Your task to perform on an android device: all mails in gmail Image 0: 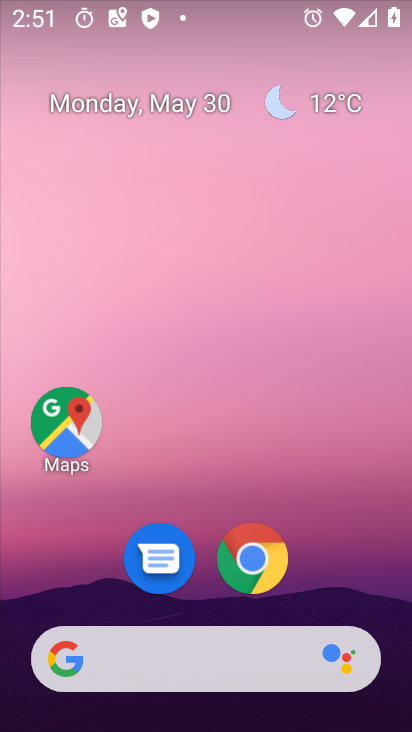
Step 0: drag from (196, 559) to (243, 7)
Your task to perform on an android device: all mails in gmail Image 1: 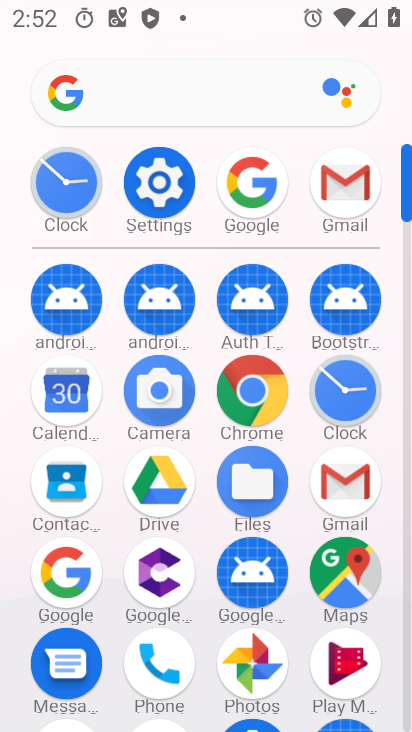
Step 1: click (351, 172)
Your task to perform on an android device: all mails in gmail Image 2: 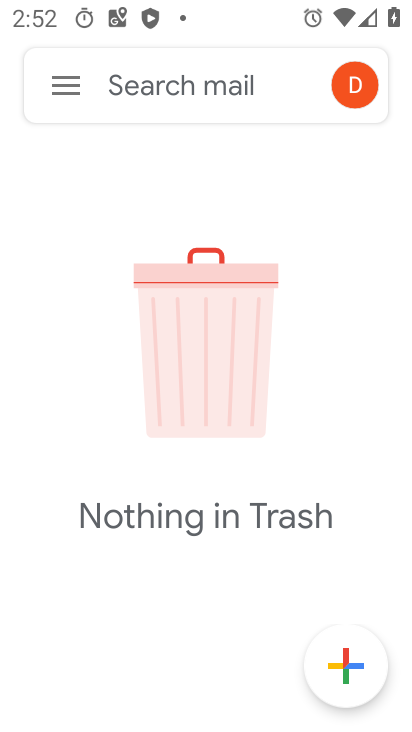
Step 2: click (57, 77)
Your task to perform on an android device: all mails in gmail Image 3: 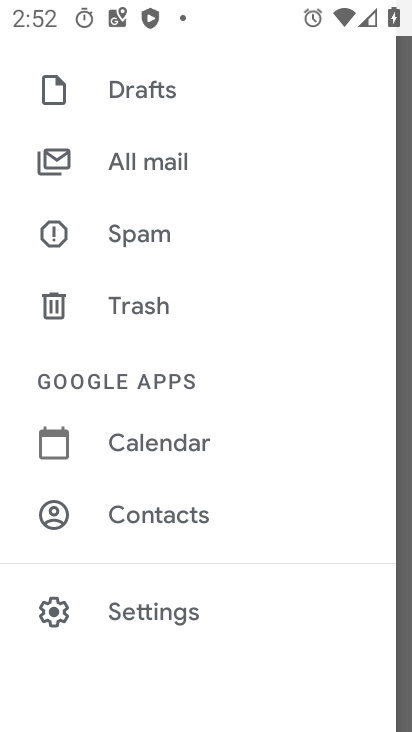
Step 3: click (131, 167)
Your task to perform on an android device: all mails in gmail Image 4: 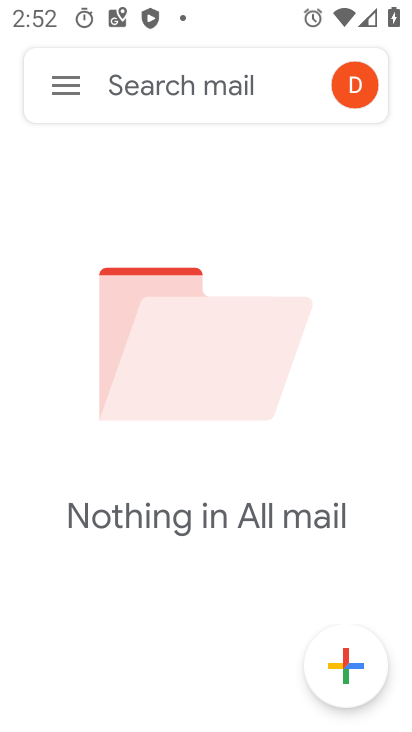
Step 4: task complete